Your task to perform on an android device: Go to Reddit.com Image 0: 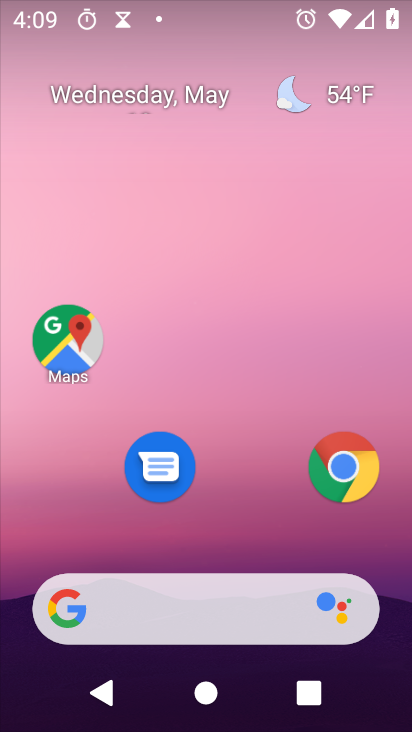
Step 0: click (335, 493)
Your task to perform on an android device: Go to Reddit.com Image 1: 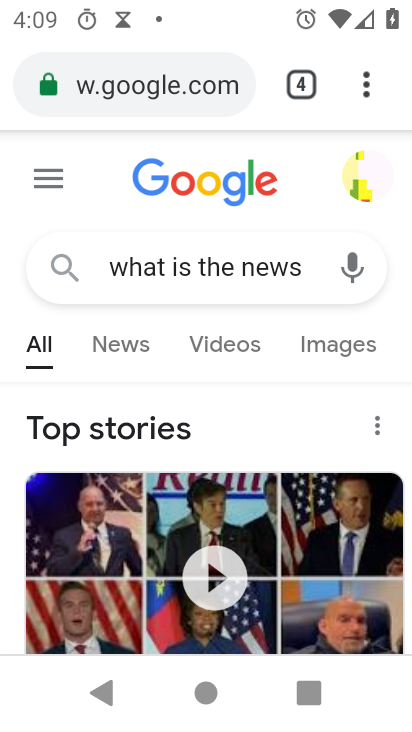
Step 1: click (73, 92)
Your task to perform on an android device: Go to Reddit.com Image 2: 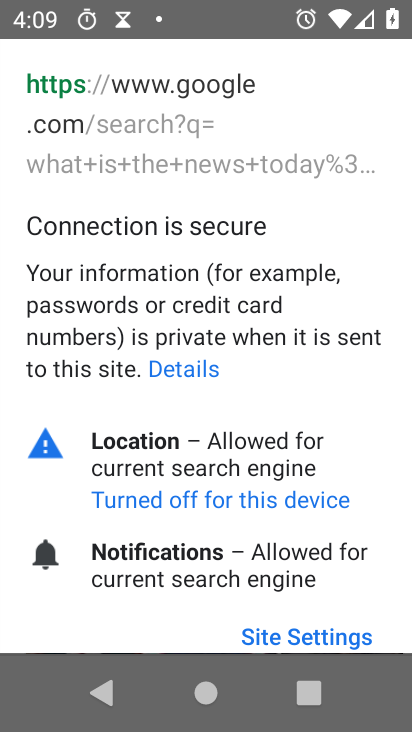
Step 2: press back button
Your task to perform on an android device: Go to Reddit.com Image 3: 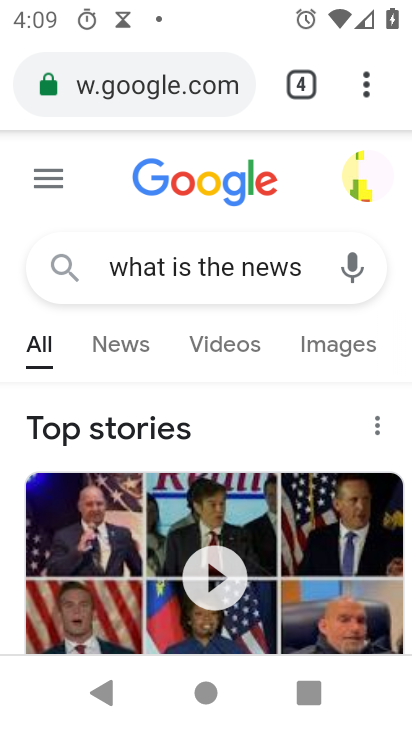
Step 3: click (159, 86)
Your task to perform on an android device: Go to Reddit.com Image 4: 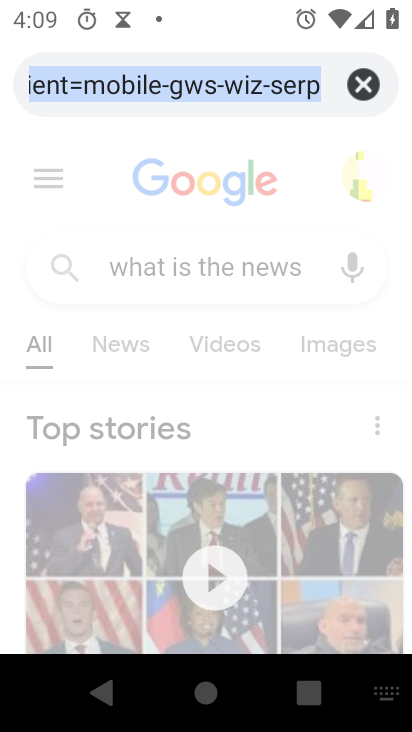
Step 4: type "Reddit.com"
Your task to perform on an android device: Go to Reddit.com Image 5: 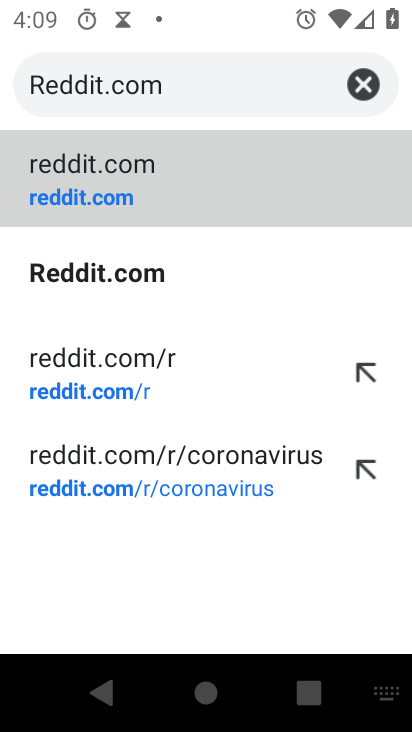
Step 5: click (86, 207)
Your task to perform on an android device: Go to Reddit.com Image 6: 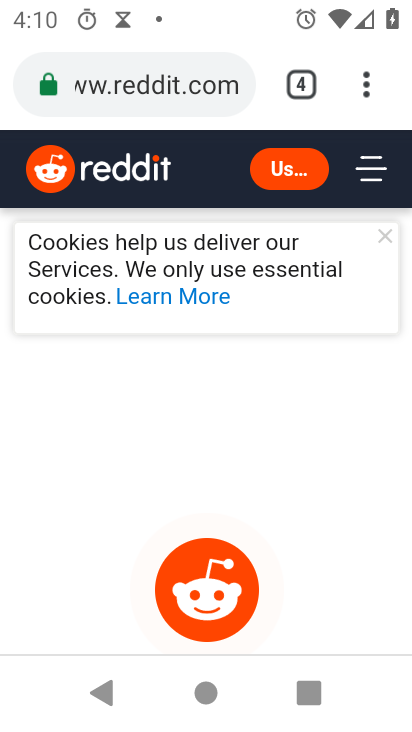
Step 6: task complete